Your task to perform on an android device: Open Google Chrome and click the shortcut for Amazon.com Image 0: 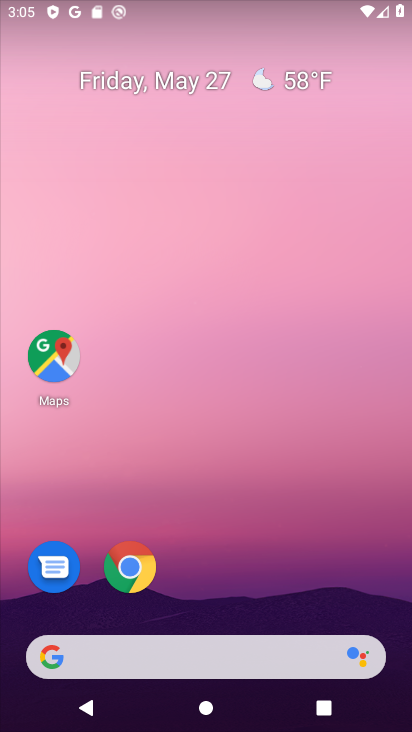
Step 0: press home button
Your task to perform on an android device: Open Google Chrome and click the shortcut for Amazon.com Image 1: 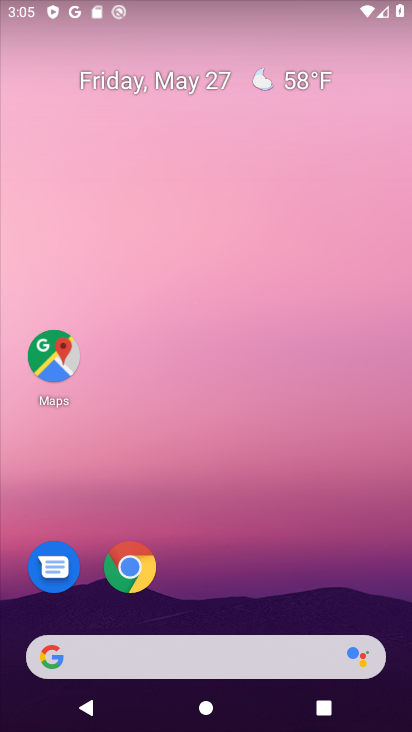
Step 1: click (125, 561)
Your task to perform on an android device: Open Google Chrome and click the shortcut for Amazon.com Image 2: 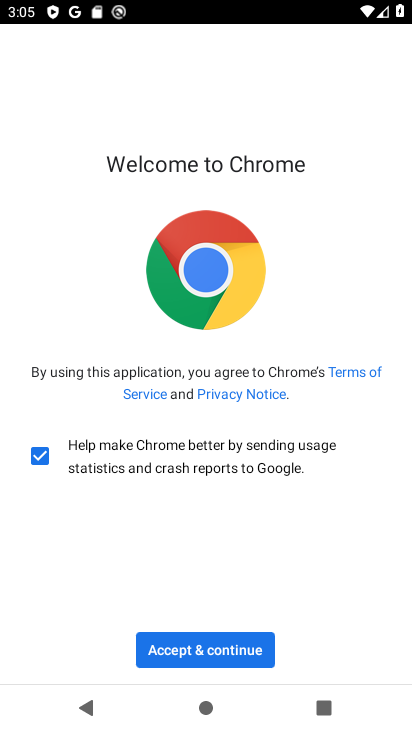
Step 2: click (200, 645)
Your task to perform on an android device: Open Google Chrome and click the shortcut for Amazon.com Image 3: 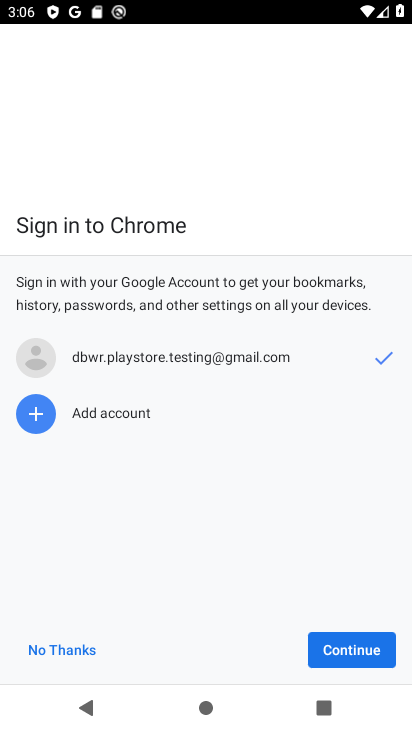
Step 3: click (353, 644)
Your task to perform on an android device: Open Google Chrome and click the shortcut for Amazon.com Image 4: 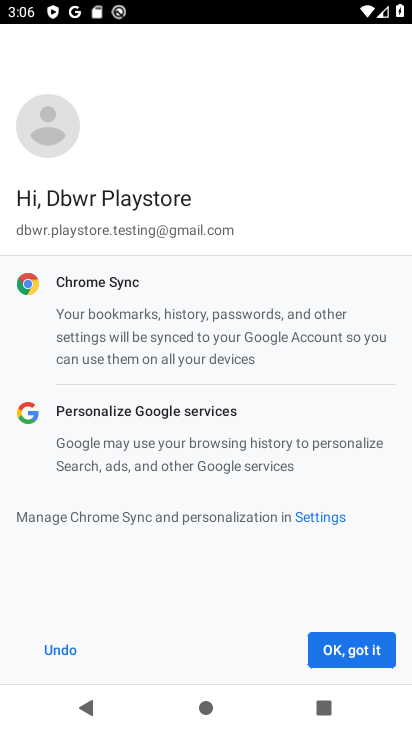
Step 4: click (352, 645)
Your task to perform on an android device: Open Google Chrome and click the shortcut for Amazon.com Image 5: 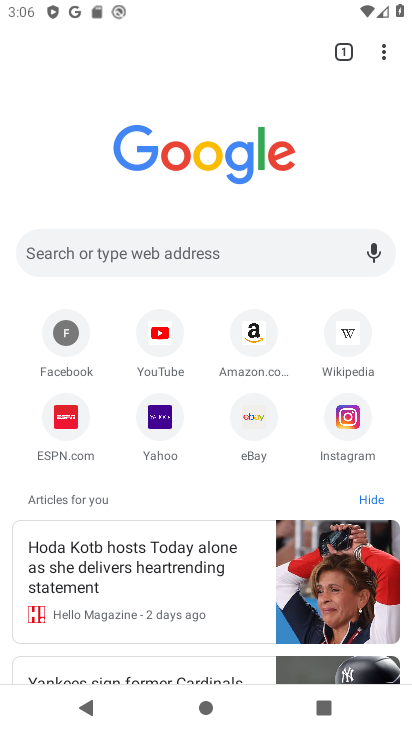
Step 5: click (250, 338)
Your task to perform on an android device: Open Google Chrome and click the shortcut for Amazon.com Image 6: 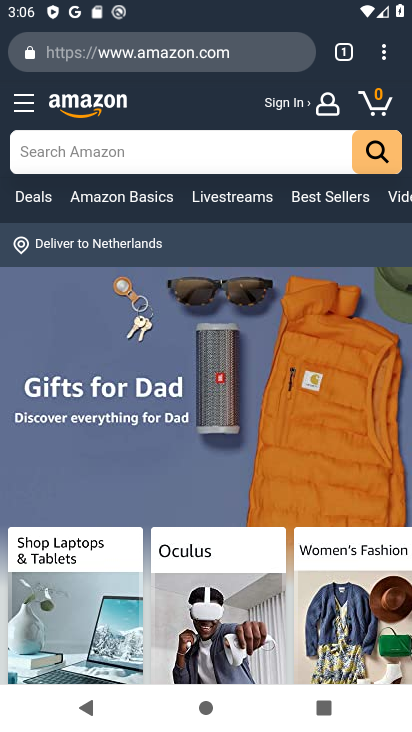
Step 6: task complete